Your task to perform on an android device: Go to Google Image 0: 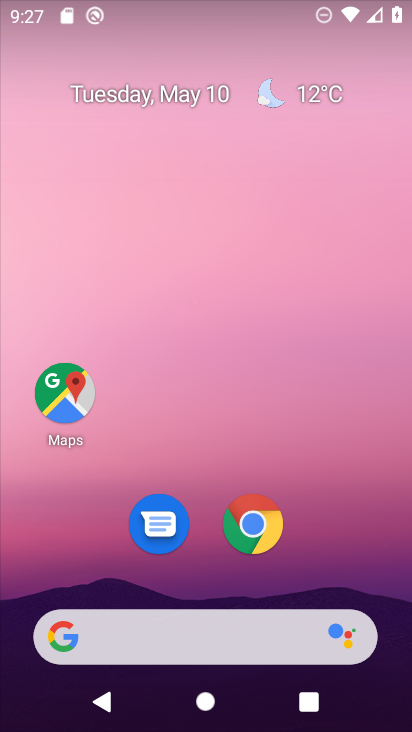
Step 0: click (262, 636)
Your task to perform on an android device: Go to Google Image 1: 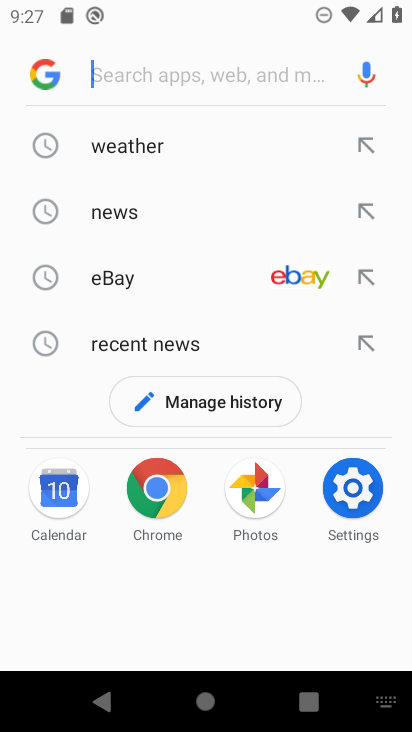
Step 1: click (43, 69)
Your task to perform on an android device: Go to Google Image 2: 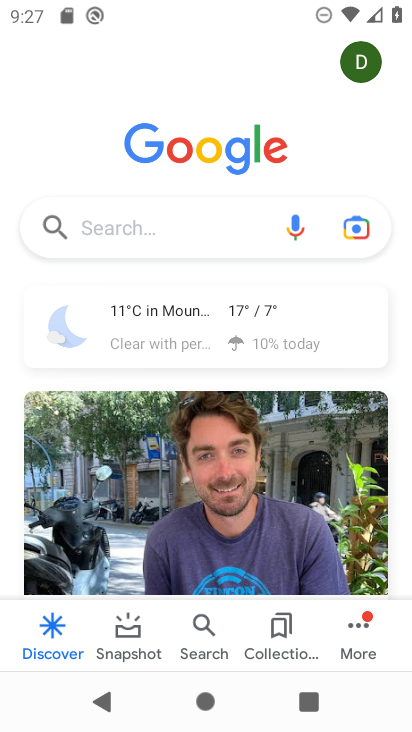
Step 2: task complete